Your task to perform on an android device: Open location settings Image 0: 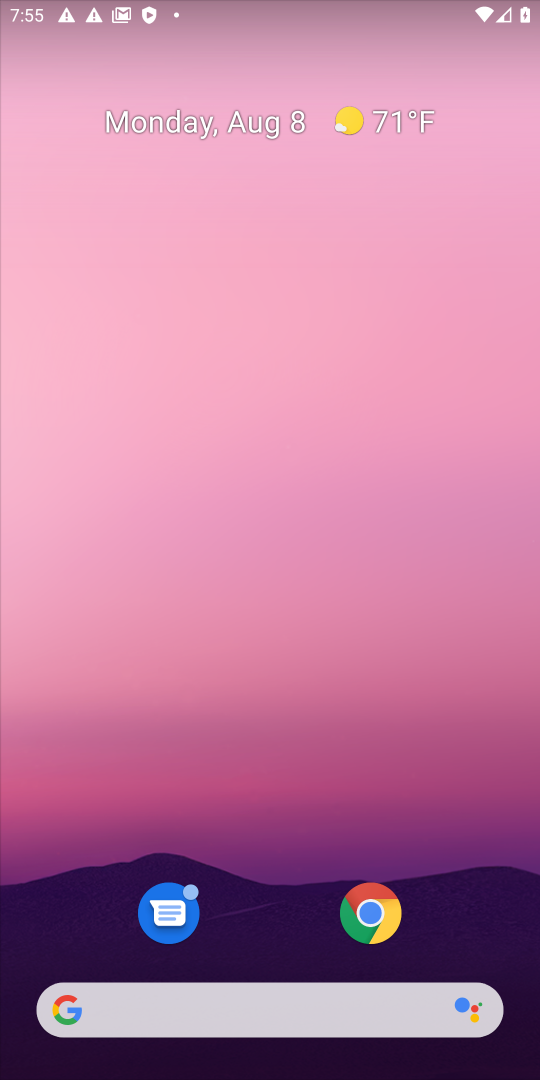
Step 0: drag from (221, 1007) to (473, 22)
Your task to perform on an android device: Open location settings Image 1: 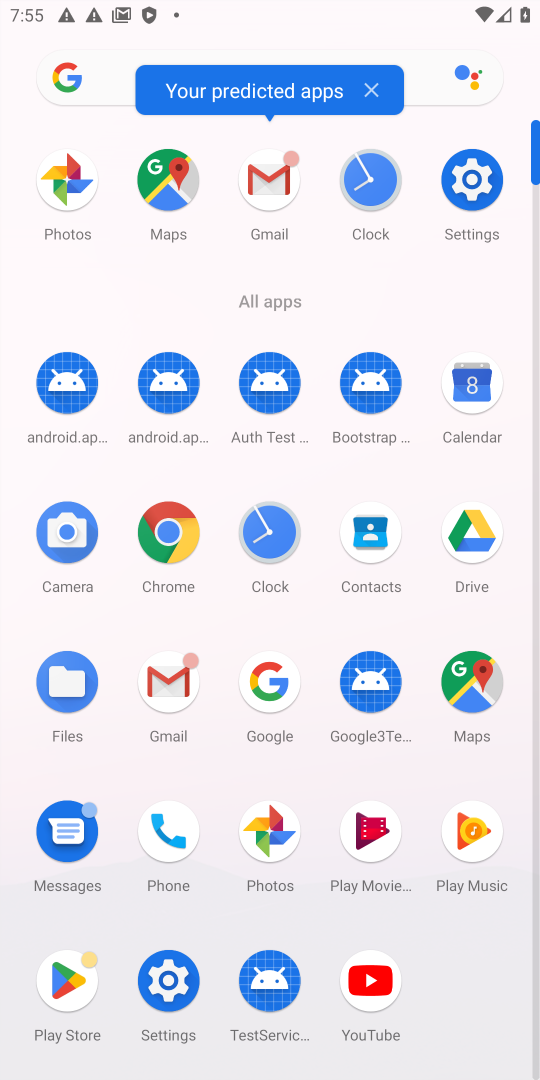
Step 1: click (468, 177)
Your task to perform on an android device: Open location settings Image 2: 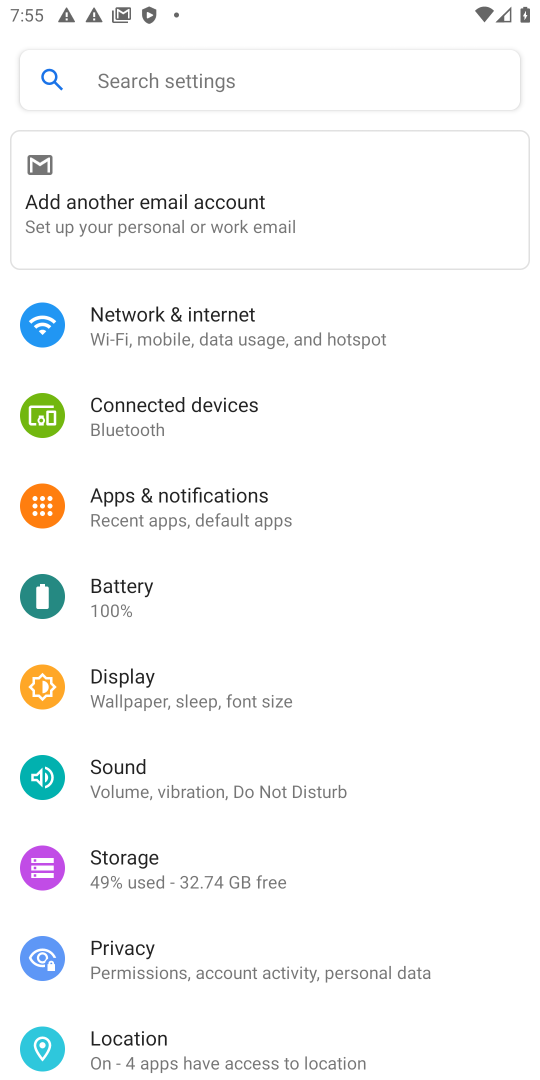
Step 2: click (112, 1041)
Your task to perform on an android device: Open location settings Image 3: 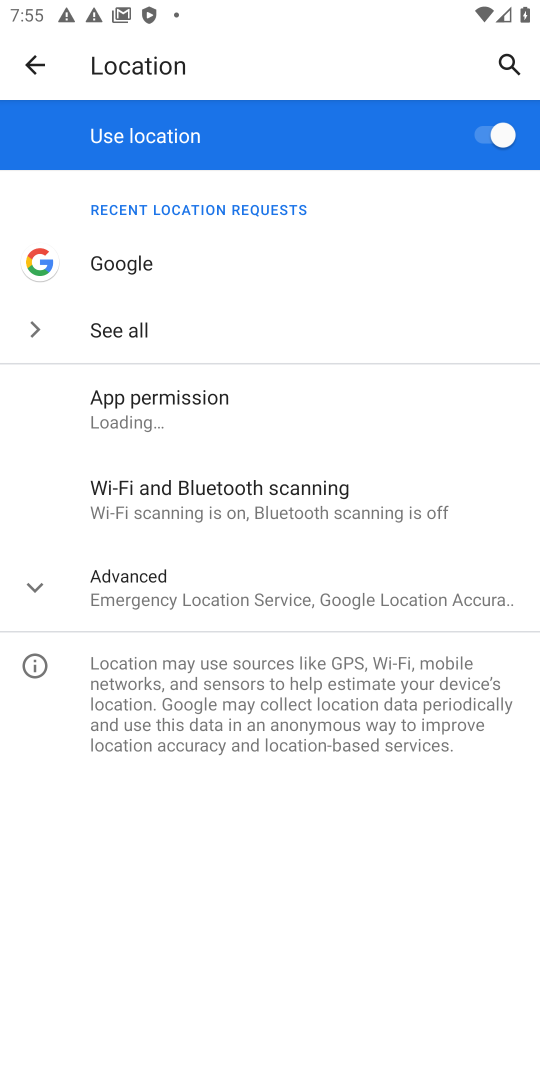
Step 3: task complete